Your task to perform on an android device: Open settings Image 0: 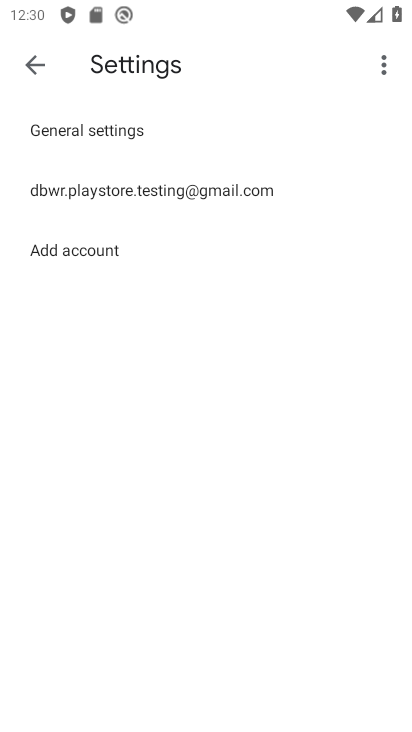
Step 0: press home button
Your task to perform on an android device: Open settings Image 1: 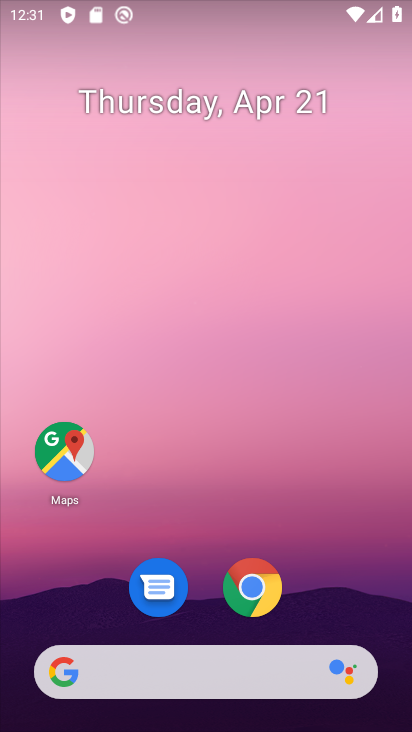
Step 1: drag from (195, 444) to (154, 4)
Your task to perform on an android device: Open settings Image 2: 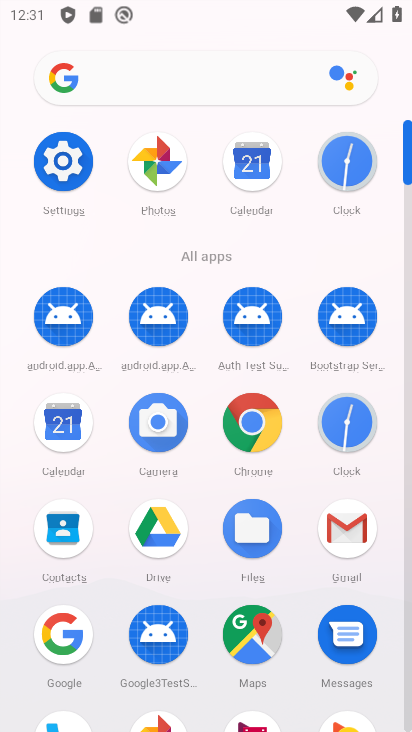
Step 2: click (66, 163)
Your task to perform on an android device: Open settings Image 3: 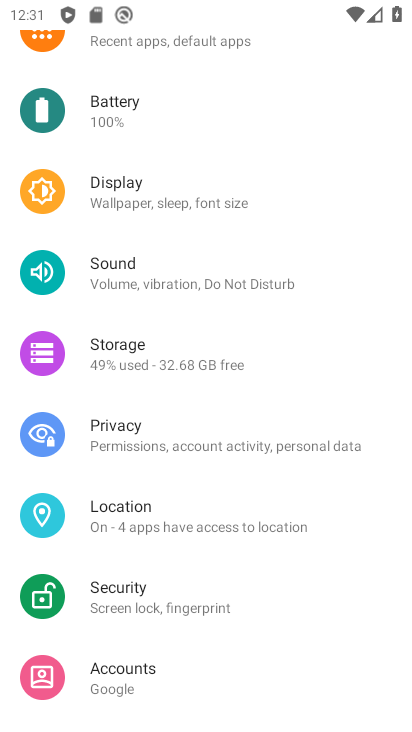
Step 3: task complete